Your task to perform on an android device: What's a good restaurant in Philadelphia? Image 0: 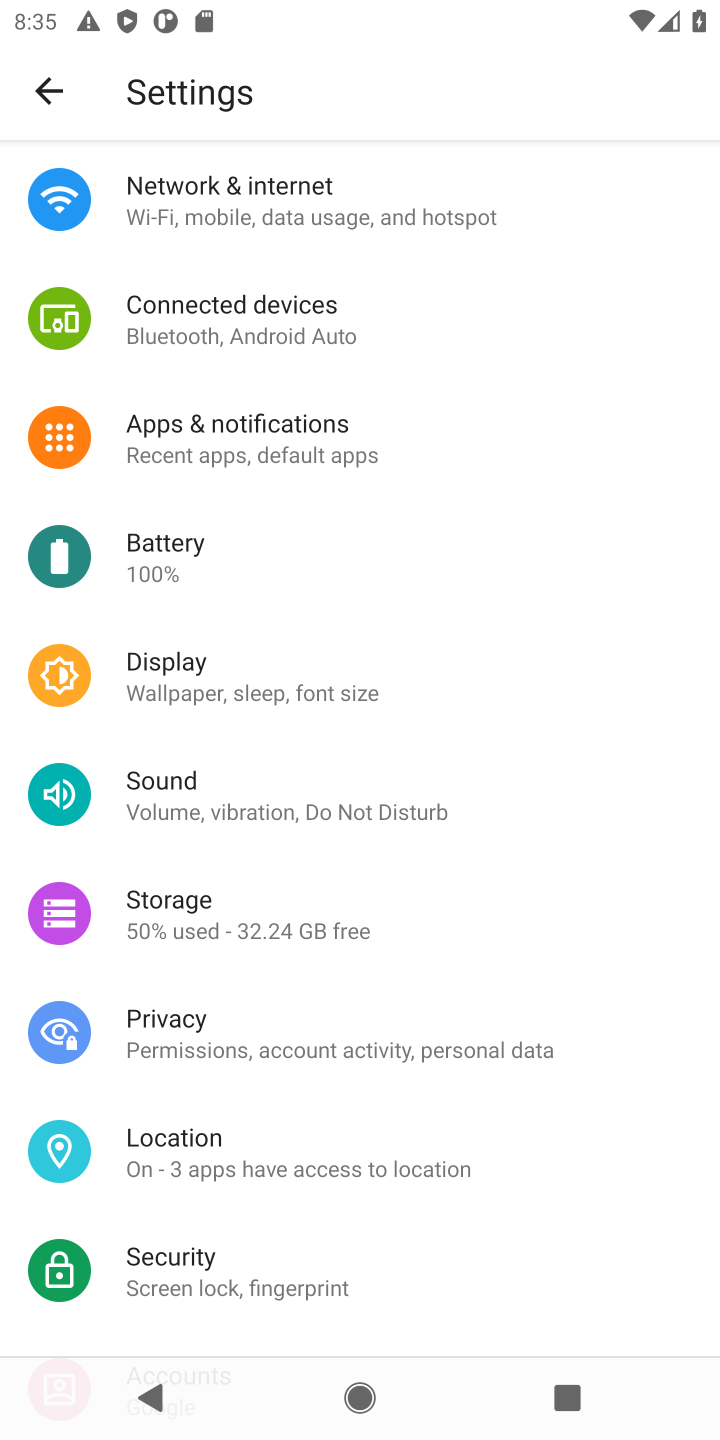
Step 0: press home button
Your task to perform on an android device: What's a good restaurant in Philadelphia? Image 1: 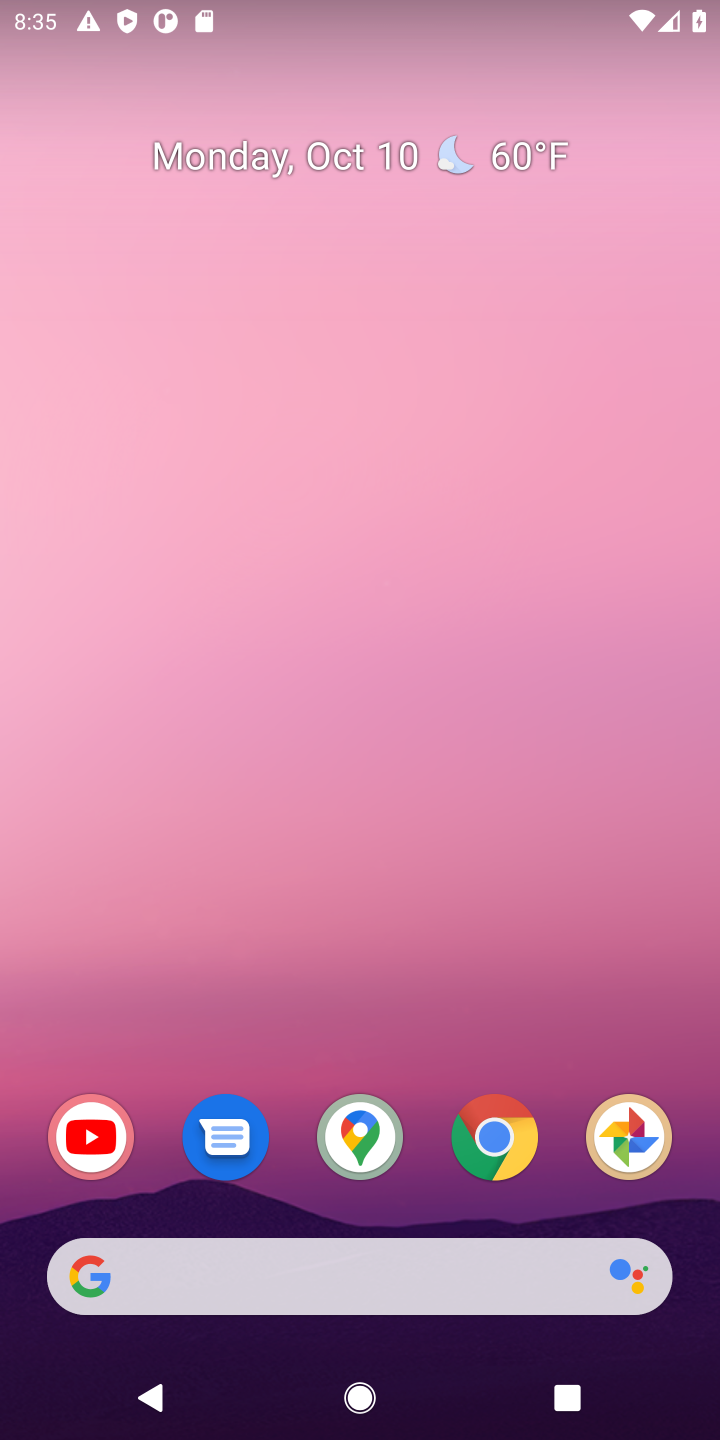
Step 1: click (499, 1131)
Your task to perform on an android device: What's a good restaurant in Philadelphia? Image 2: 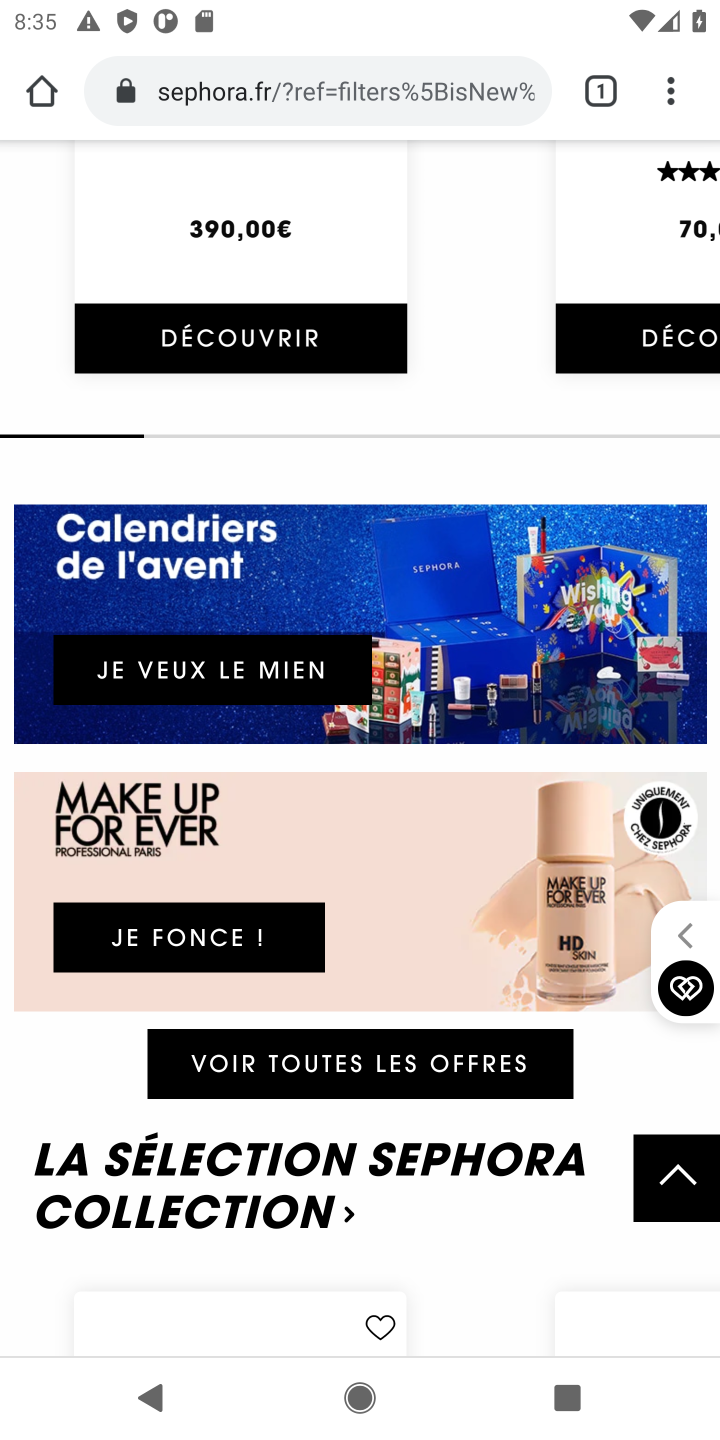
Step 2: click (303, 63)
Your task to perform on an android device: What's a good restaurant in Philadelphia? Image 3: 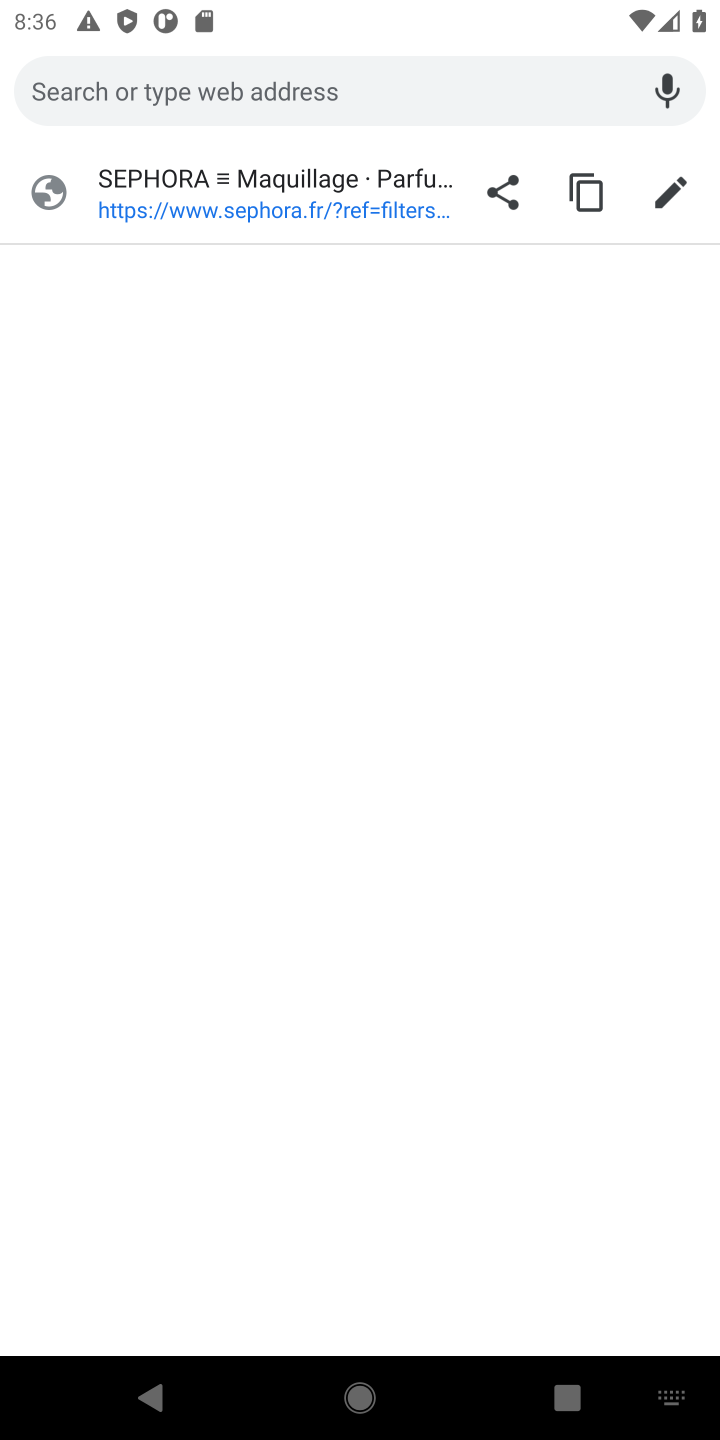
Step 3: type "good restaurant in philadelphia"
Your task to perform on an android device: What's a good restaurant in Philadelphia? Image 4: 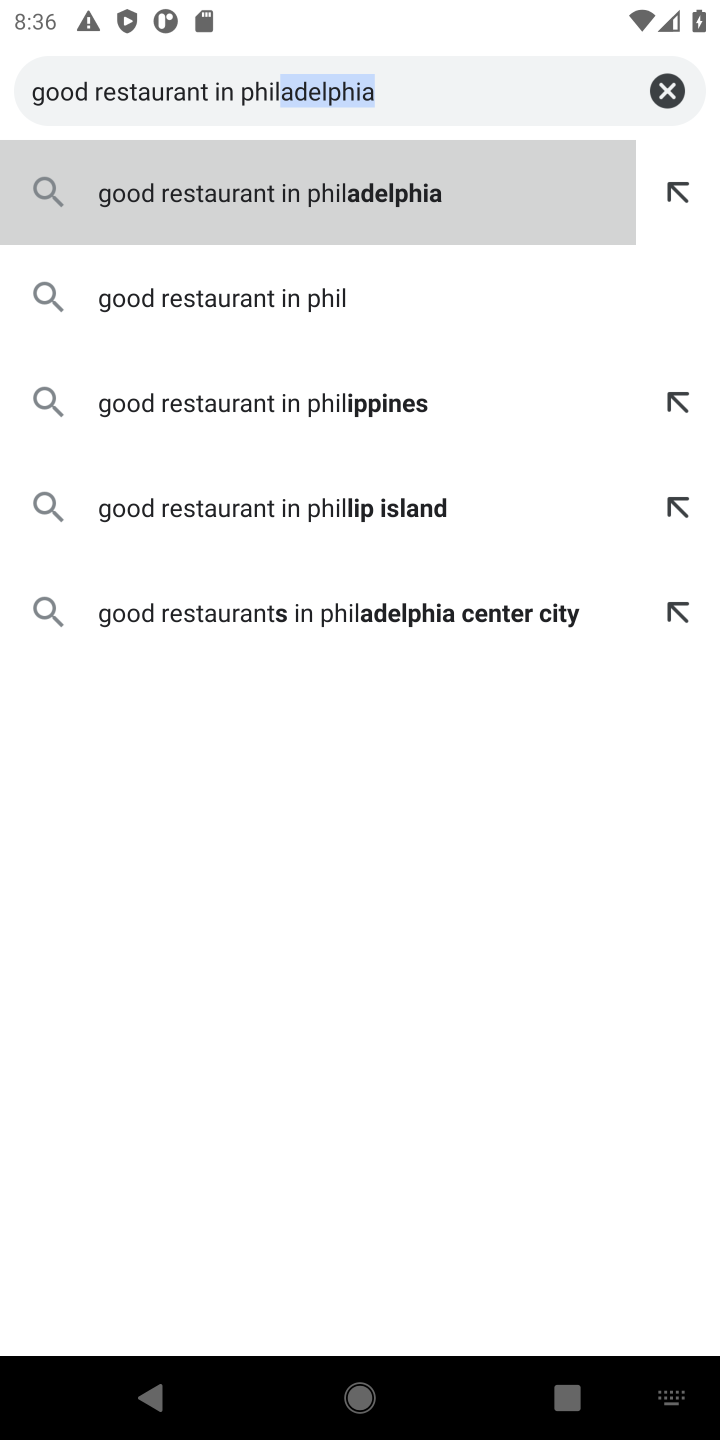
Step 4: click (181, 201)
Your task to perform on an android device: What's a good restaurant in Philadelphia? Image 5: 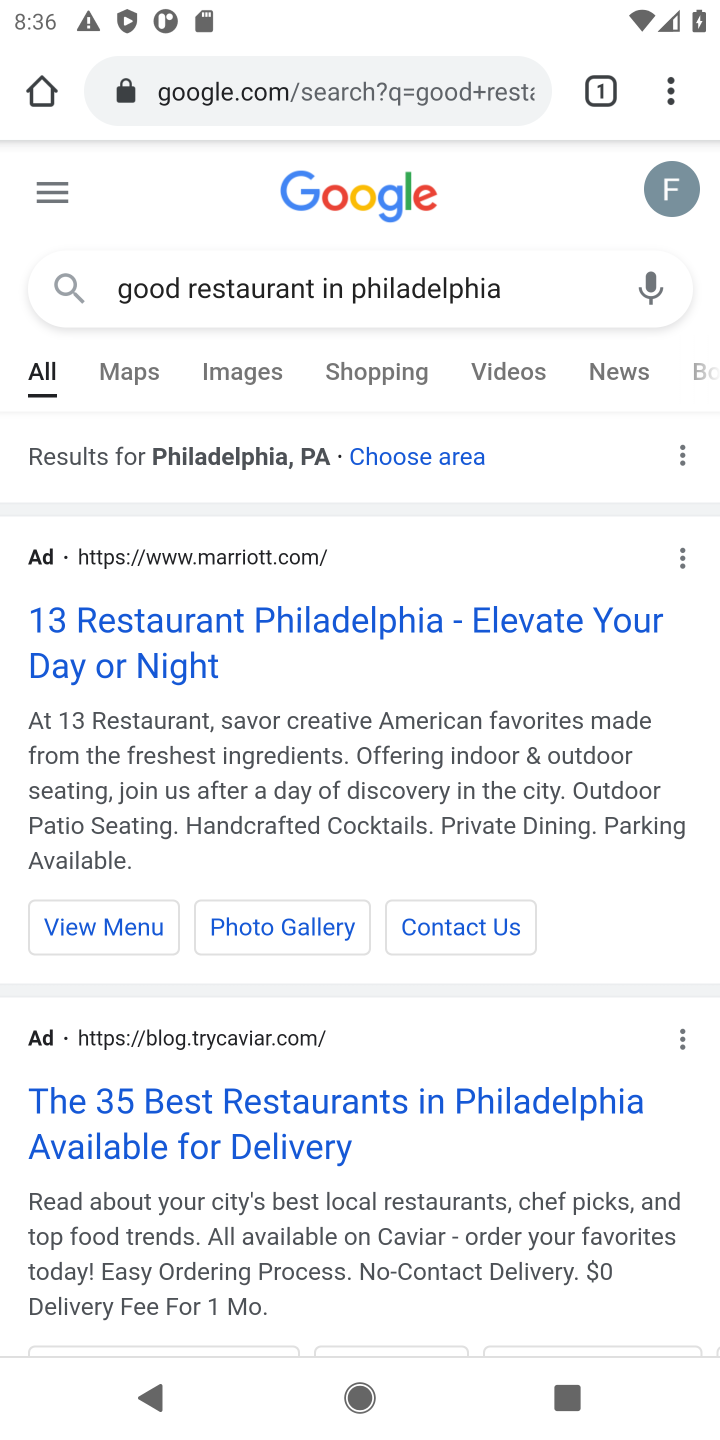
Step 5: click (173, 634)
Your task to perform on an android device: What's a good restaurant in Philadelphia? Image 6: 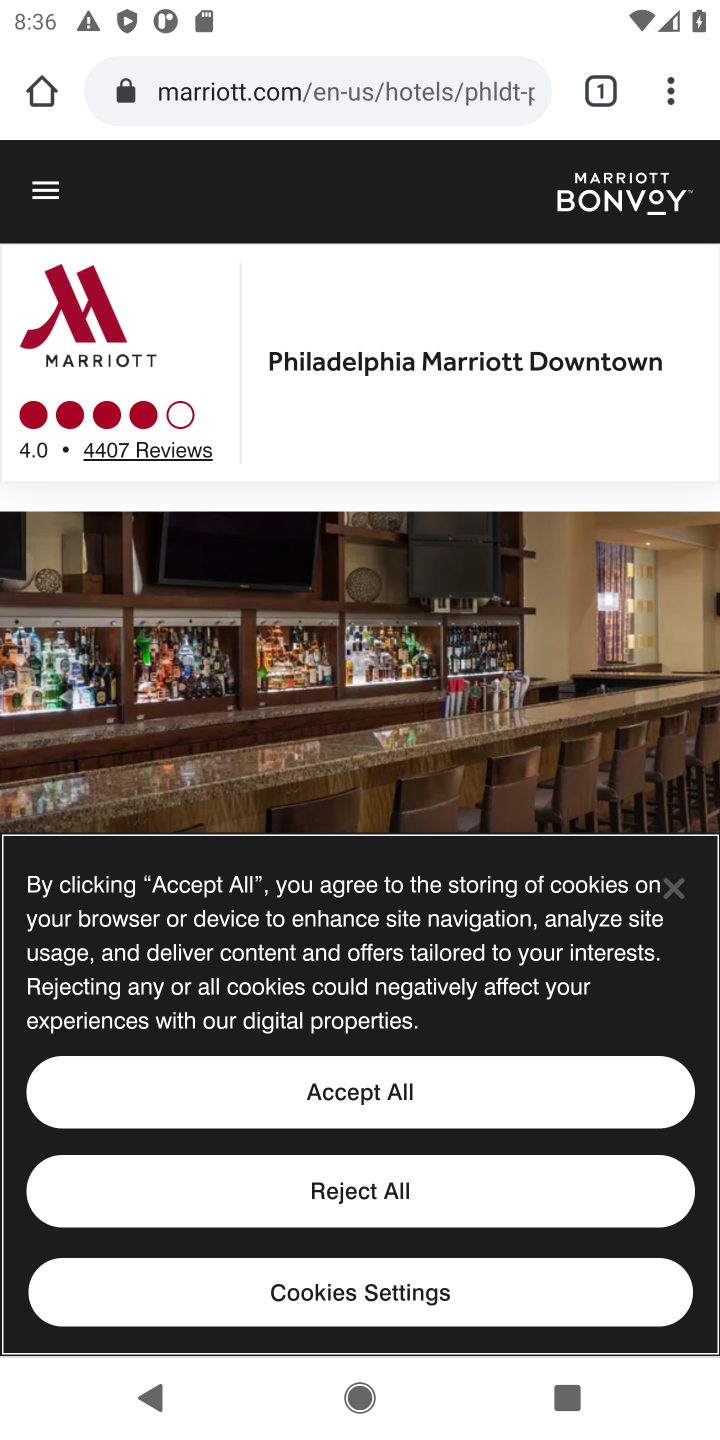
Step 6: click (347, 1084)
Your task to perform on an android device: What's a good restaurant in Philadelphia? Image 7: 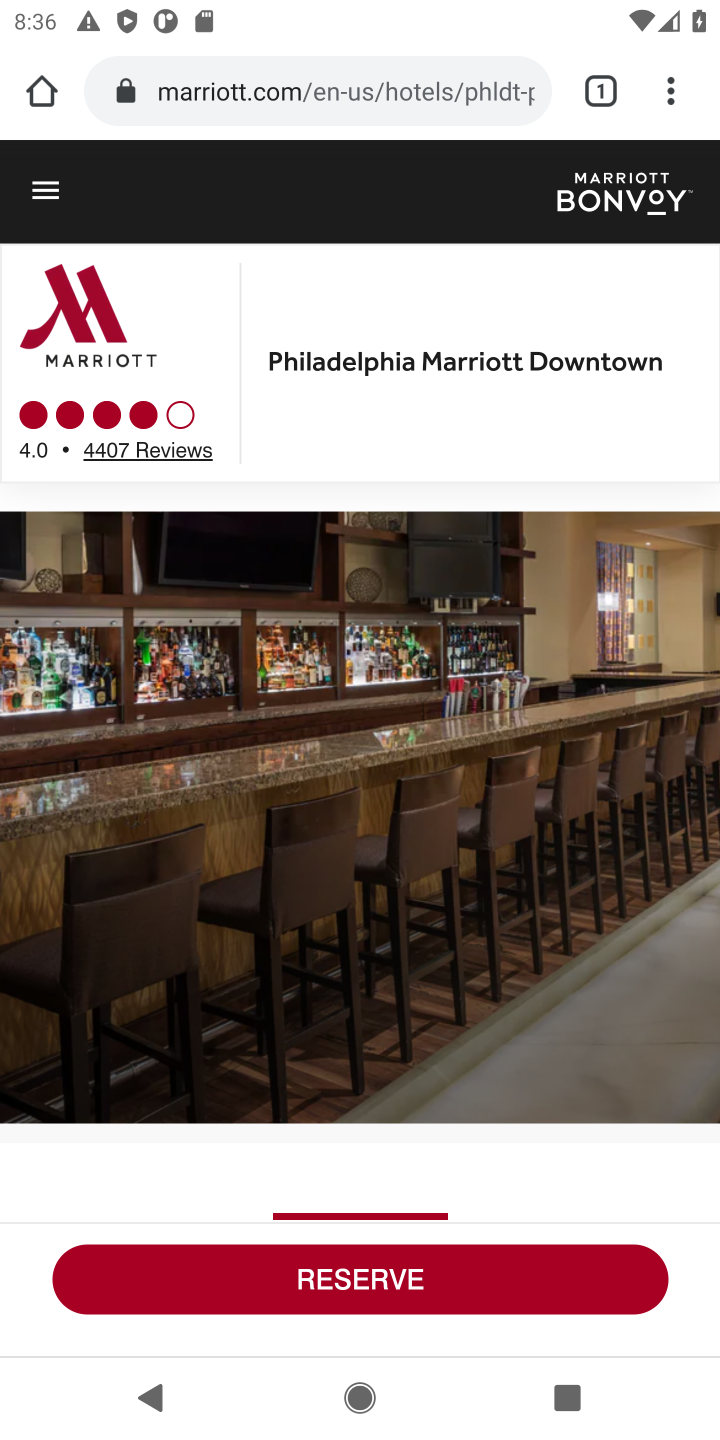
Step 7: task complete